Your task to perform on an android device: What is the news today? Image 0: 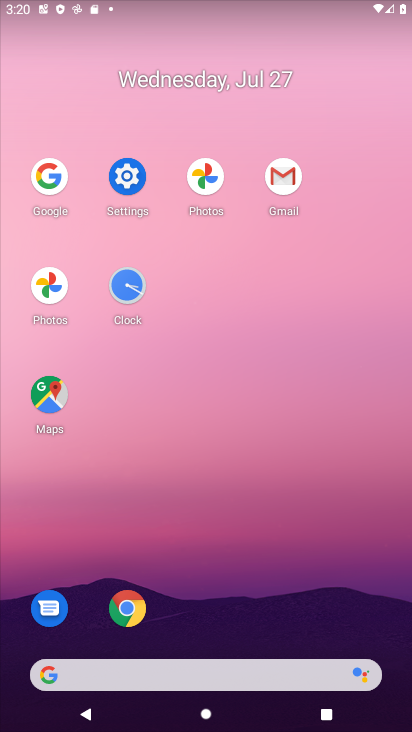
Step 0: click (49, 181)
Your task to perform on an android device: What is the news today? Image 1: 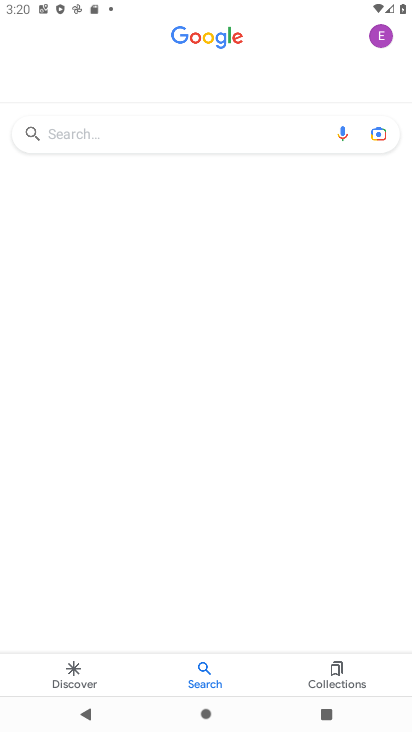
Step 1: click (128, 134)
Your task to perform on an android device: What is the news today? Image 2: 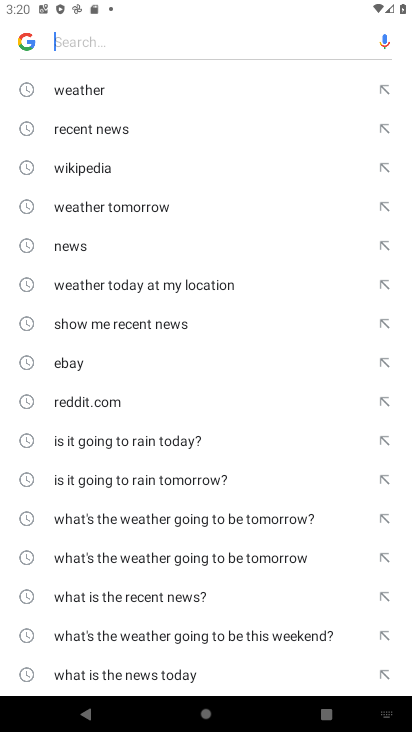
Step 2: click (93, 246)
Your task to perform on an android device: What is the news today? Image 3: 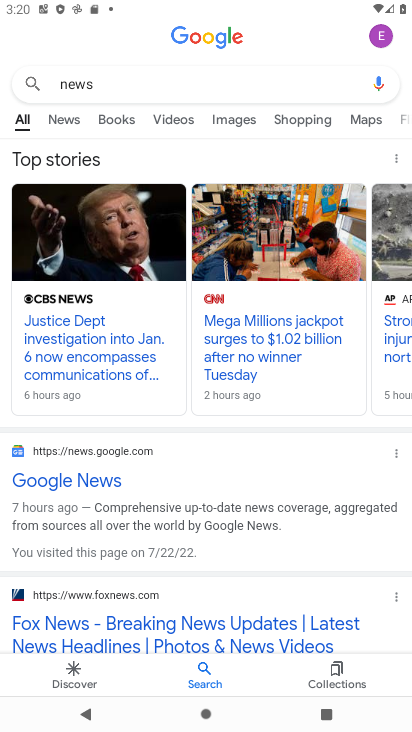
Step 3: task complete